Your task to perform on an android device: What's on my calendar today? Image 0: 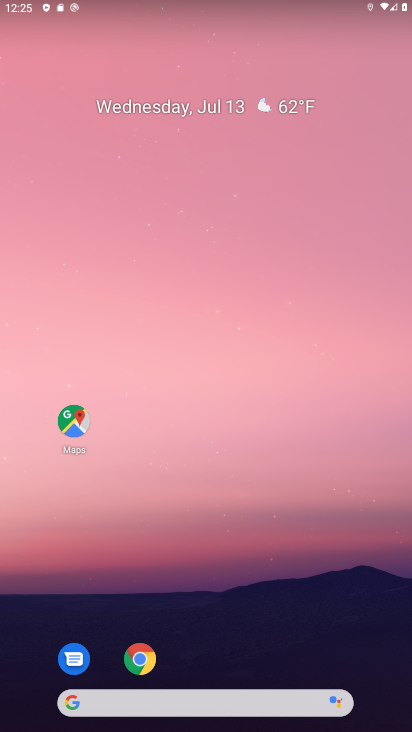
Step 0: drag from (281, 668) to (255, 141)
Your task to perform on an android device: What's on my calendar today? Image 1: 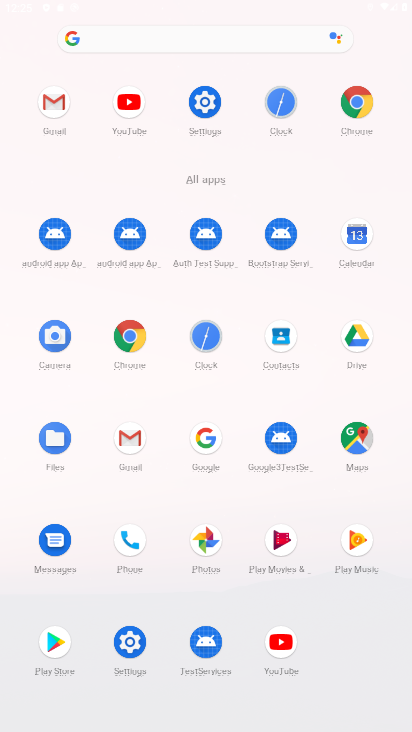
Step 1: click (354, 233)
Your task to perform on an android device: What's on my calendar today? Image 2: 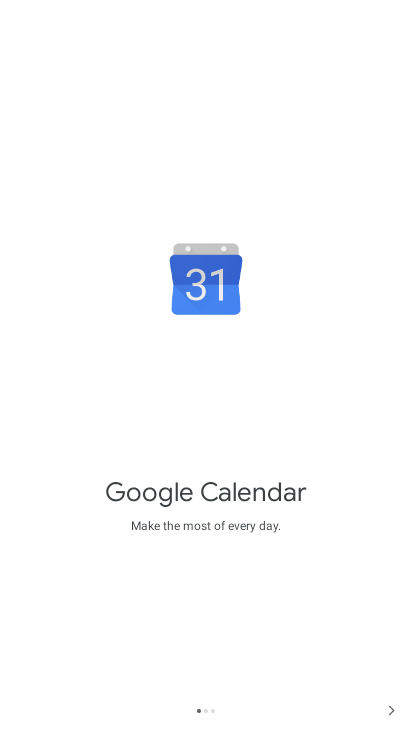
Step 2: click (383, 706)
Your task to perform on an android device: What's on my calendar today? Image 3: 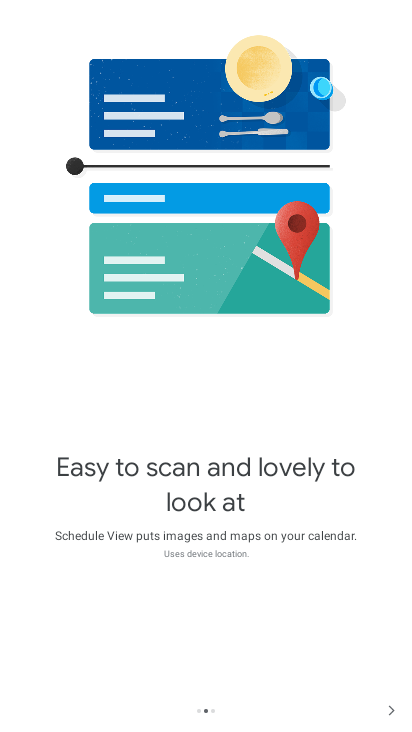
Step 3: click (384, 718)
Your task to perform on an android device: What's on my calendar today? Image 4: 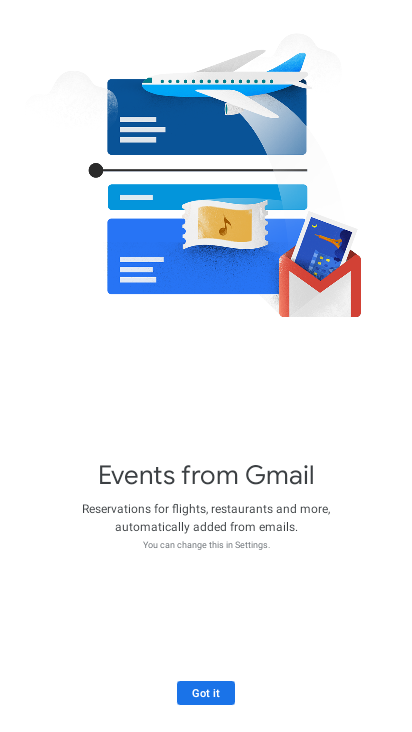
Step 4: click (211, 697)
Your task to perform on an android device: What's on my calendar today? Image 5: 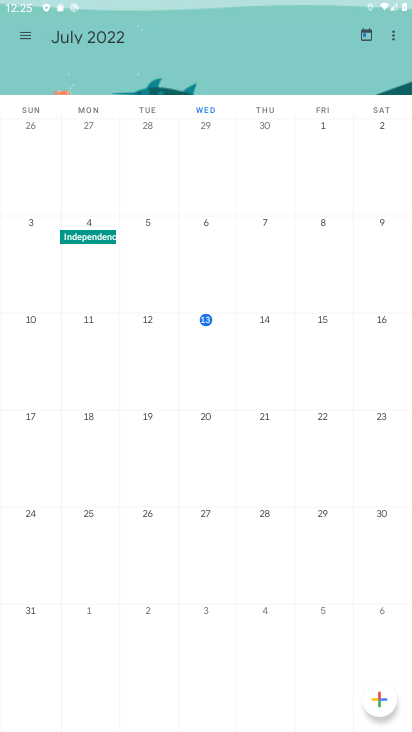
Step 5: click (208, 322)
Your task to perform on an android device: What's on my calendar today? Image 6: 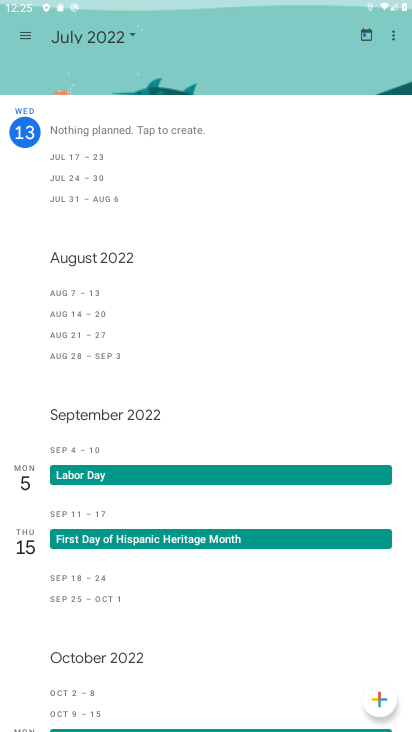
Step 6: click (213, 320)
Your task to perform on an android device: What's on my calendar today? Image 7: 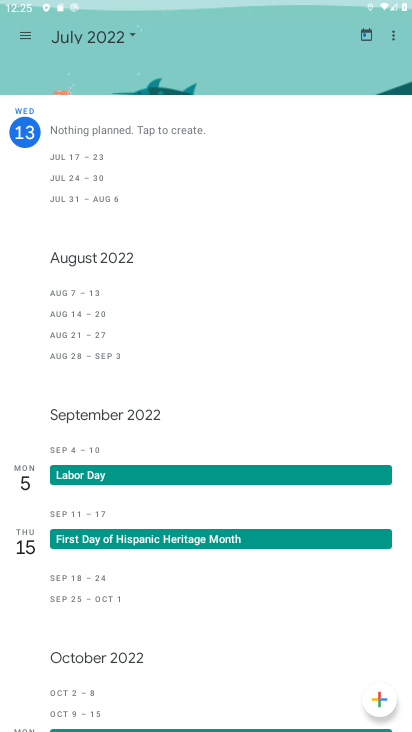
Step 7: click (213, 316)
Your task to perform on an android device: What's on my calendar today? Image 8: 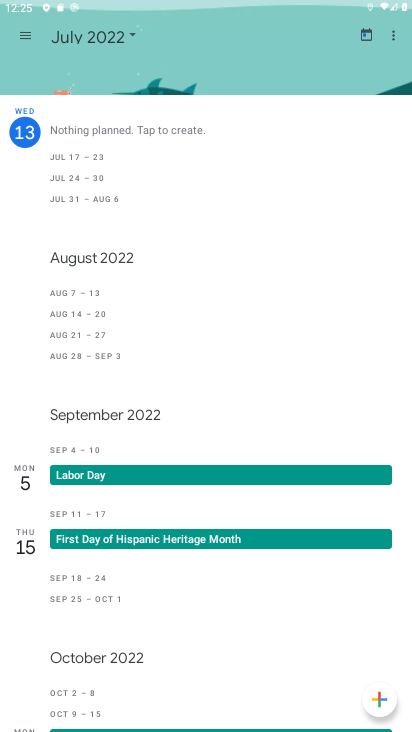
Step 8: task complete